Your task to perform on an android device: Open sound settings Image 0: 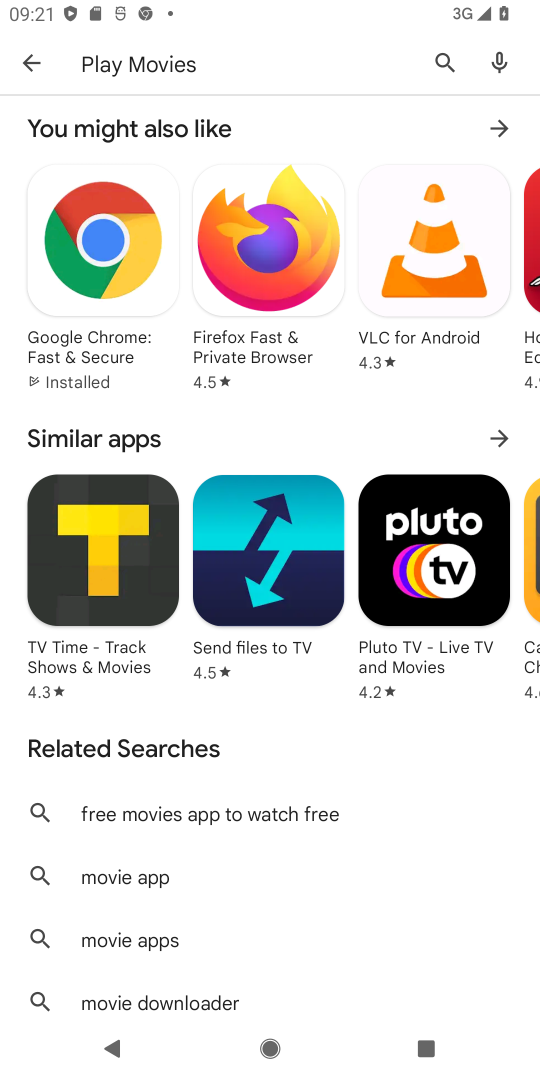
Step 0: press home button
Your task to perform on an android device: Open sound settings Image 1: 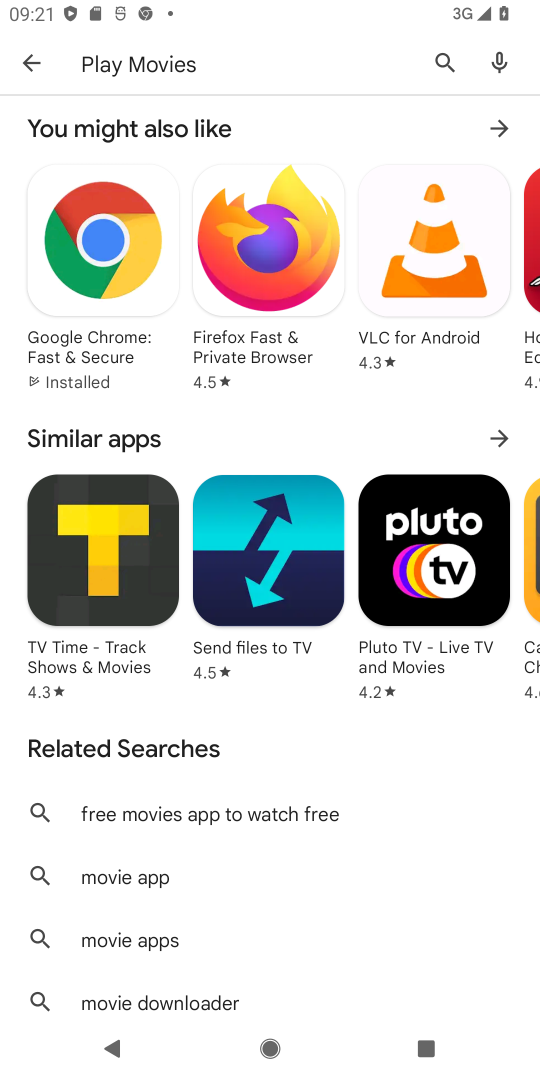
Step 1: press home button
Your task to perform on an android device: Open sound settings Image 2: 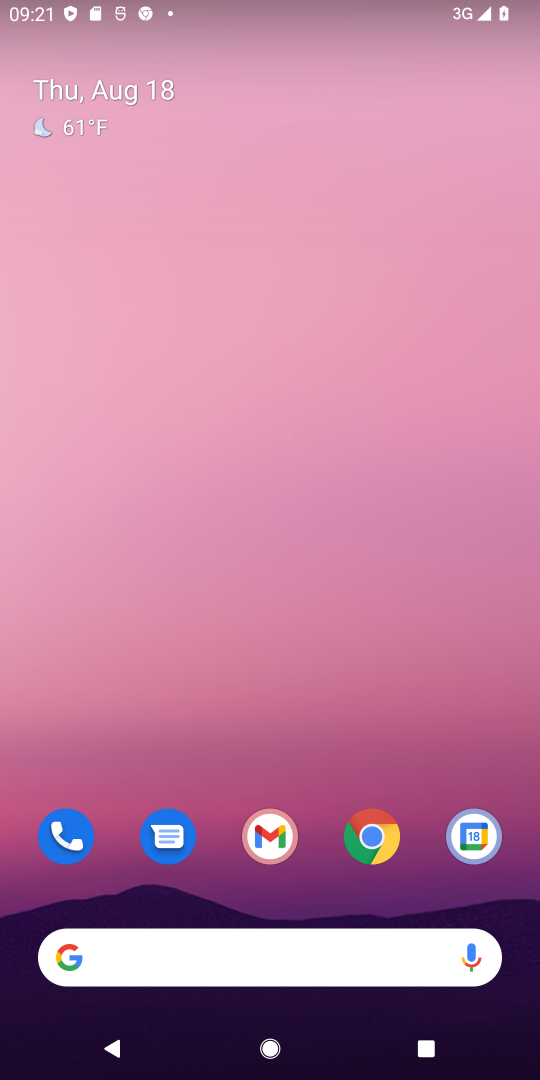
Step 2: drag from (310, 779) to (283, 23)
Your task to perform on an android device: Open sound settings Image 3: 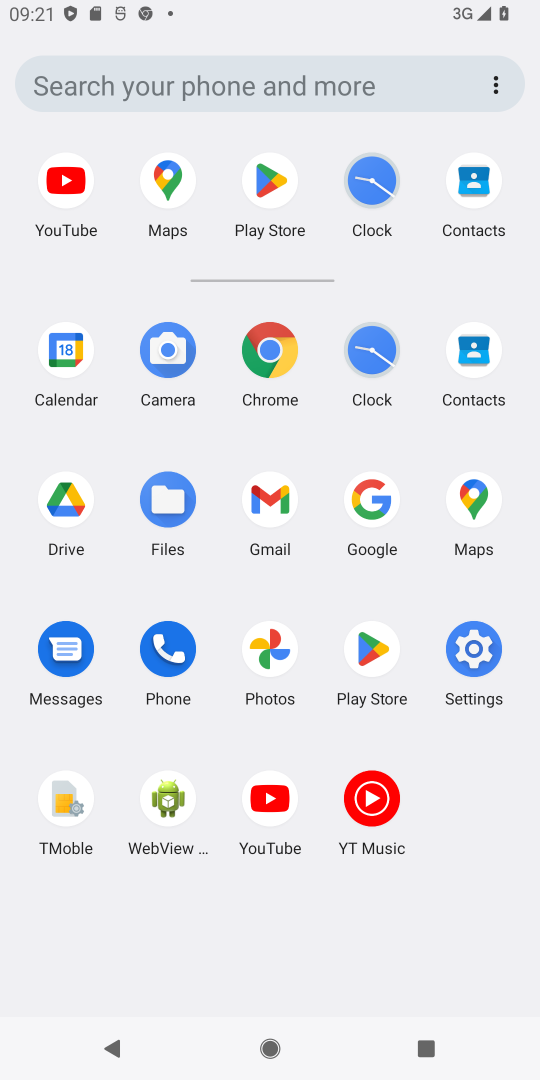
Step 3: click (466, 653)
Your task to perform on an android device: Open sound settings Image 4: 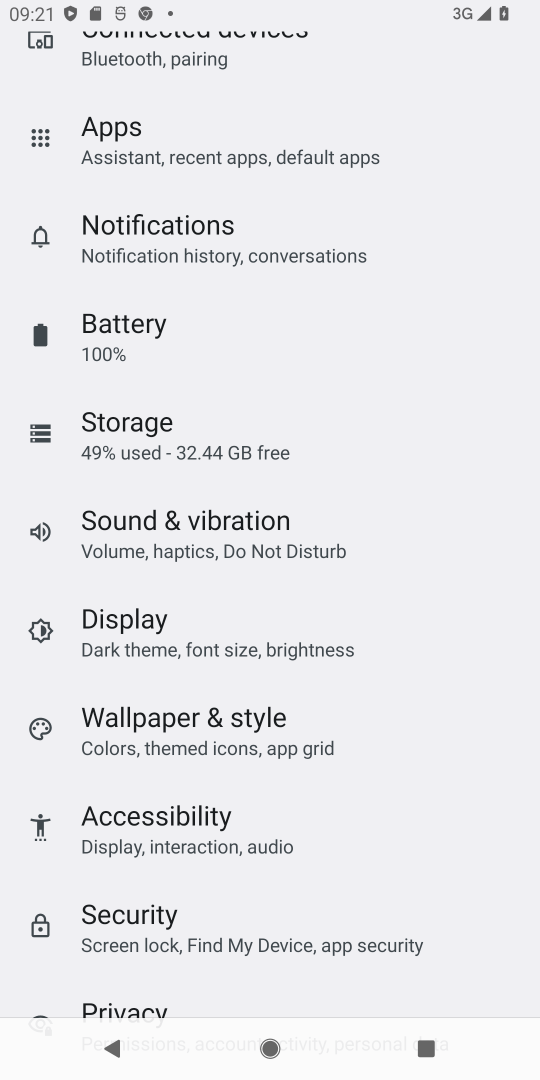
Step 4: click (212, 540)
Your task to perform on an android device: Open sound settings Image 5: 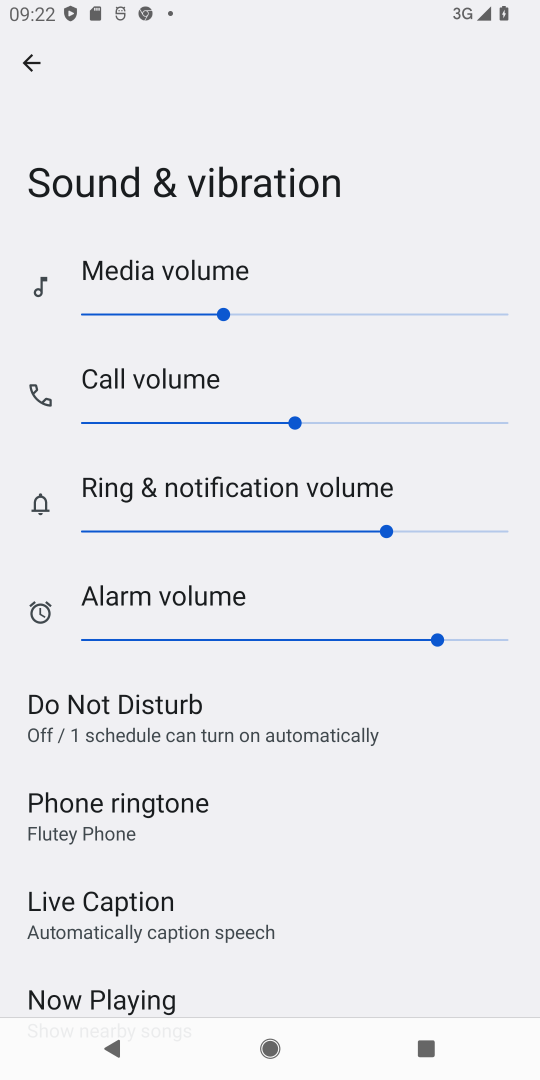
Step 5: task complete